Your task to perform on an android device: Open privacy settings Image 0: 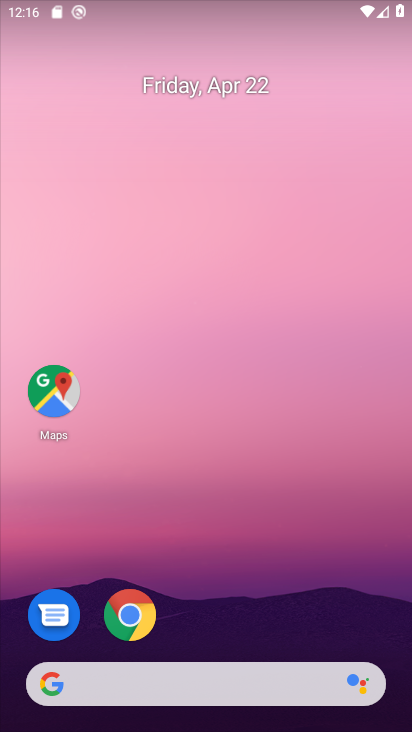
Step 0: drag from (310, 609) to (274, 221)
Your task to perform on an android device: Open privacy settings Image 1: 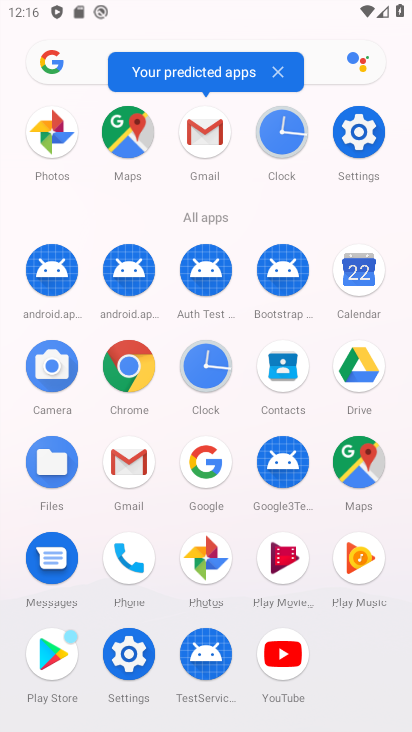
Step 1: click (357, 137)
Your task to perform on an android device: Open privacy settings Image 2: 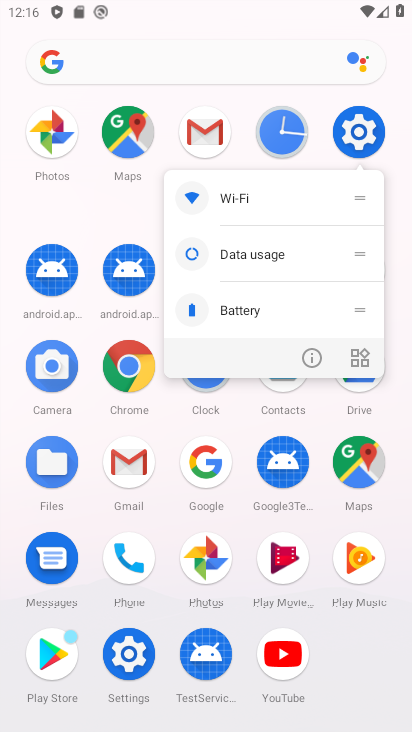
Step 2: click (357, 137)
Your task to perform on an android device: Open privacy settings Image 3: 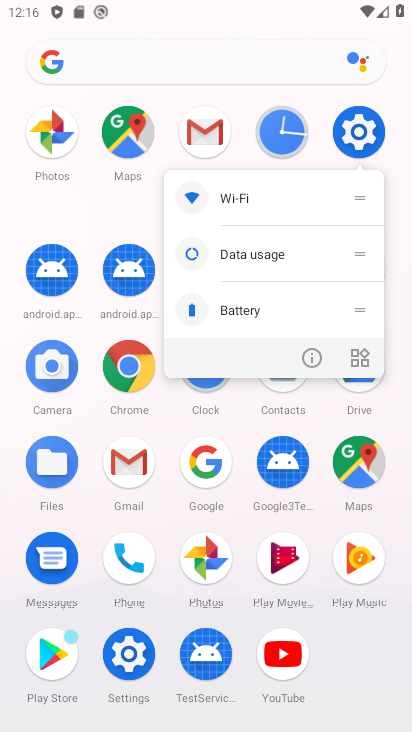
Step 3: click (357, 137)
Your task to perform on an android device: Open privacy settings Image 4: 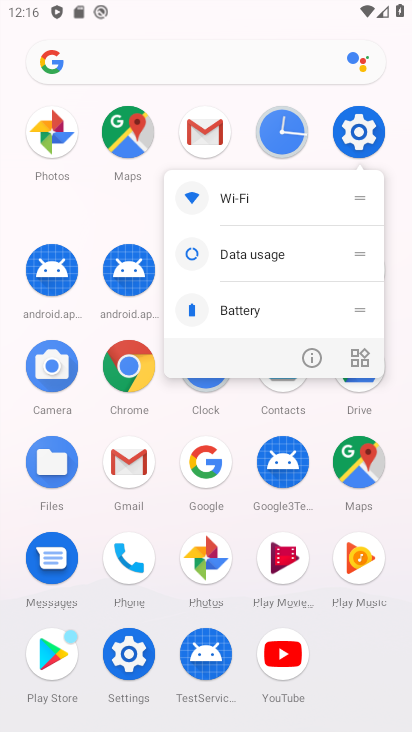
Step 4: click (357, 137)
Your task to perform on an android device: Open privacy settings Image 5: 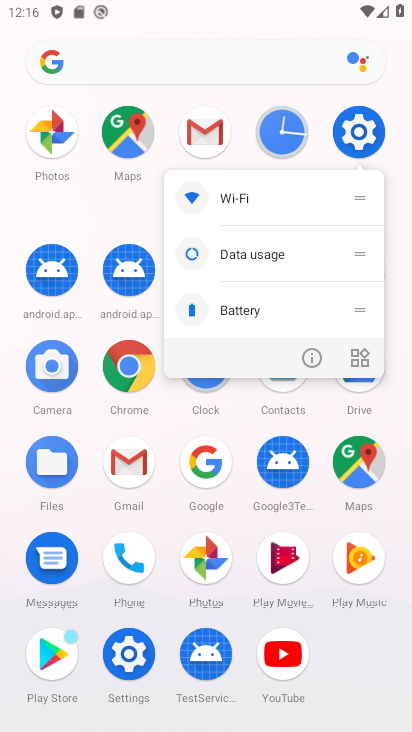
Step 5: click (343, 125)
Your task to perform on an android device: Open privacy settings Image 6: 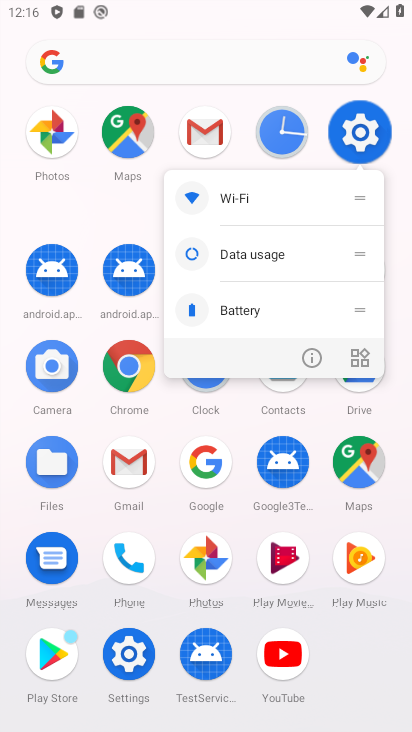
Step 6: click (343, 125)
Your task to perform on an android device: Open privacy settings Image 7: 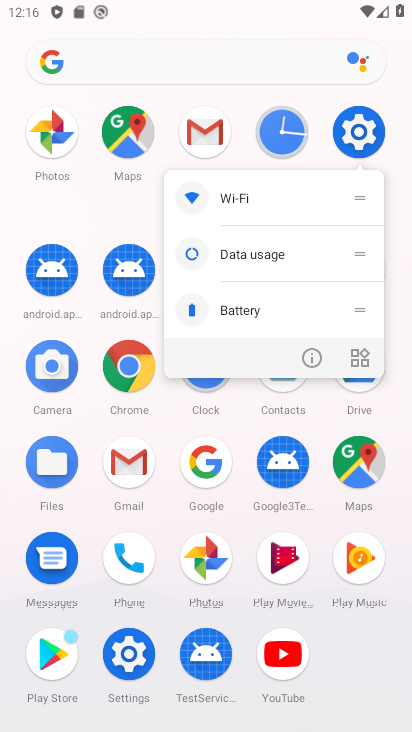
Step 7: click (348, 121)
Your task to perform on an android device: Open privacy settings Image 8: 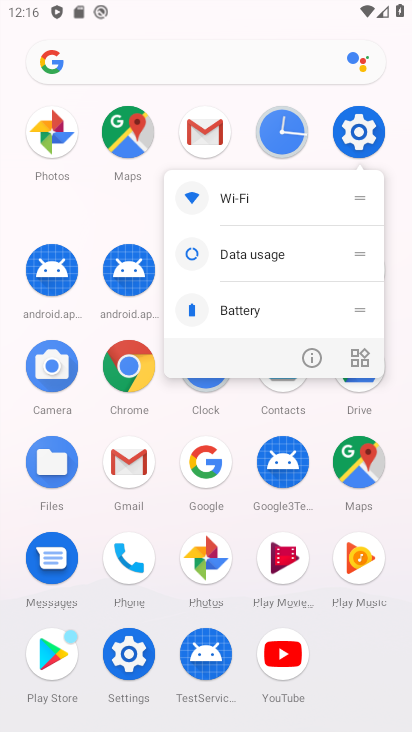
Step 8: click (362, 128)
Your task to perform on an android device: Open privacy settings Image 9: 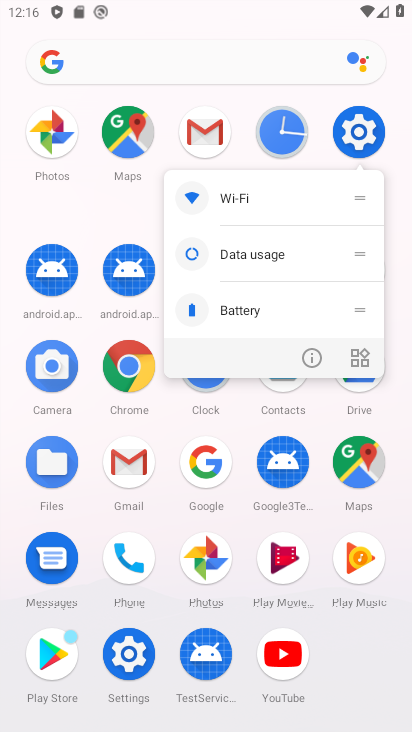
Step 9: click (362, 128)
Your task to perform on an android device: Open privacy settings Image 10: 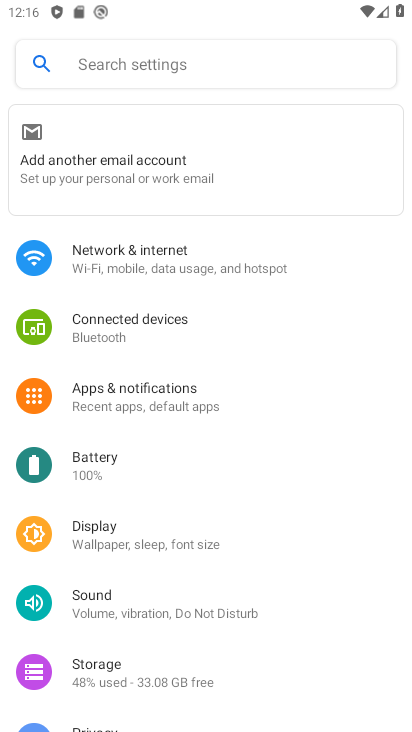
Step 10: drag from (258, 645) to (318, 224)
Your task to perform on an android device: Open privacy settings Image 11: 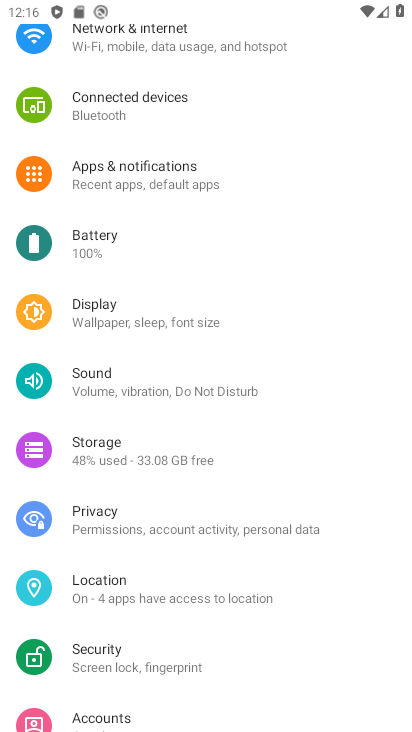
Step 11: click (148, 525)
Your task to perform on an android device: Open privacy settings Image 12: 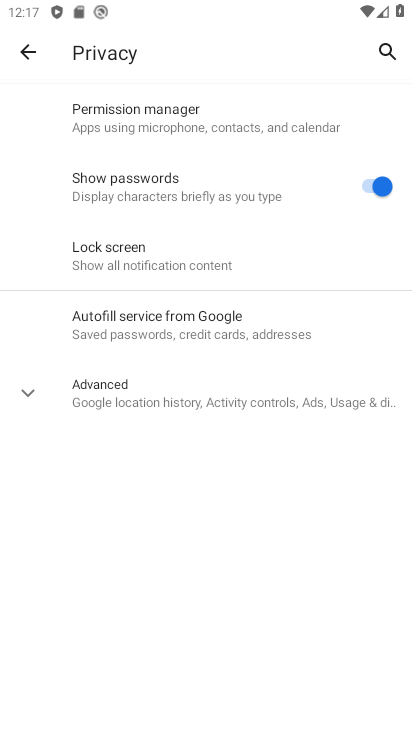
Step 12: task complete